Your task to perform on an android device: Open Youtube and go to "Your channel" Image 0: 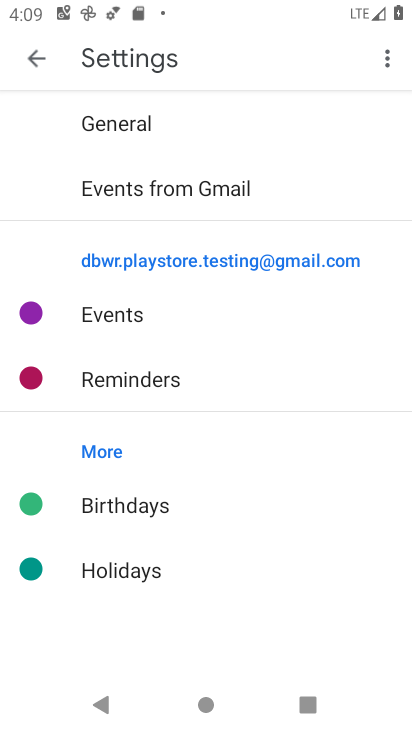
Step 0: press home button
Your task to perform on an android device: Open Youtube and go to "Your channel" Image 1: 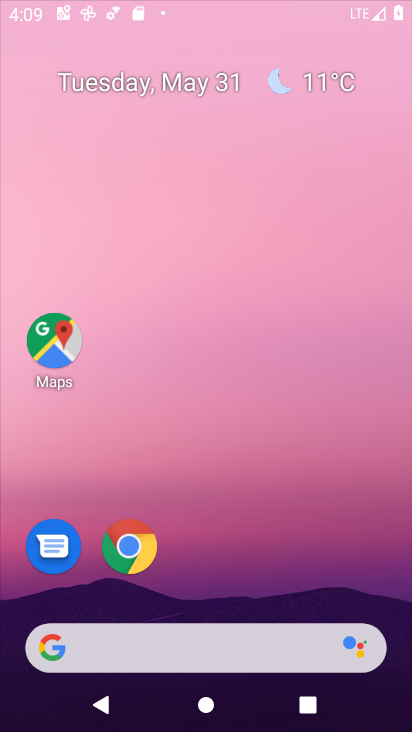
Step 1: drag from (273, 527) to (180, 11)
Your task to perform on an android device: Open Youtube and go to "Your channel" Image 2: 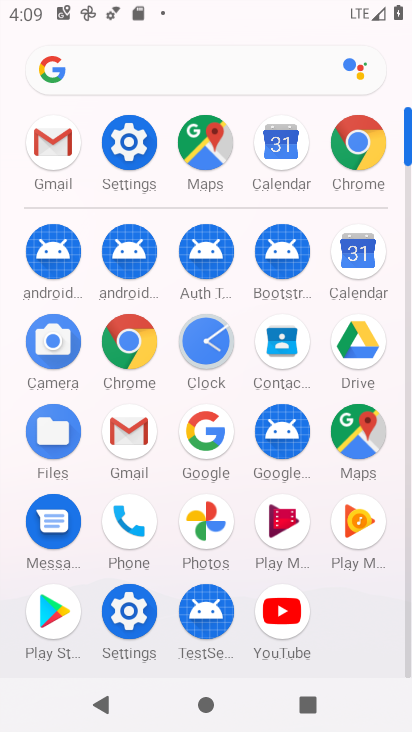
Step 2: click (304, 639)
Your task to perform on an android device: Open Youtube and go to "Your channel" Image 3: 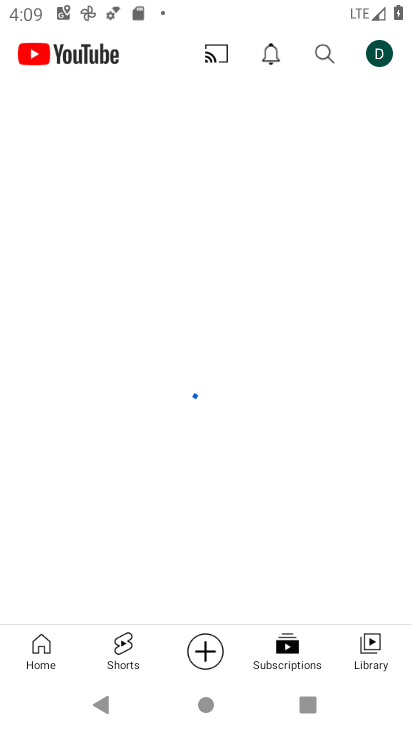
Step 3: click (387, 45)
Your task to perform on an android device: Open Youtube and go to "Your channel" Image 4: 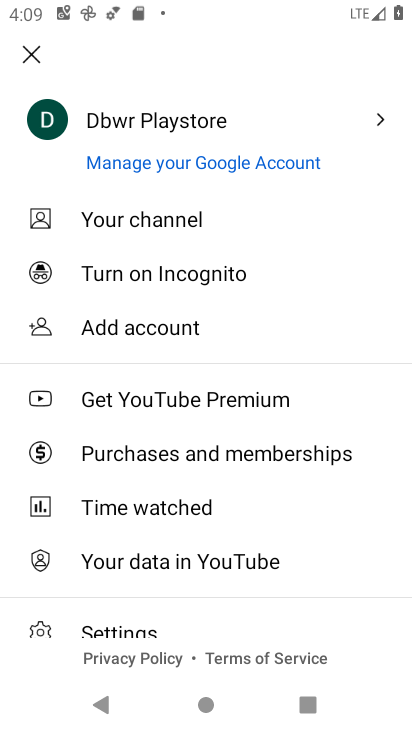
Step 4: click (119, 224)
Your task to perform on an android device: Open Youtube and go to "Your channel" Image 5: 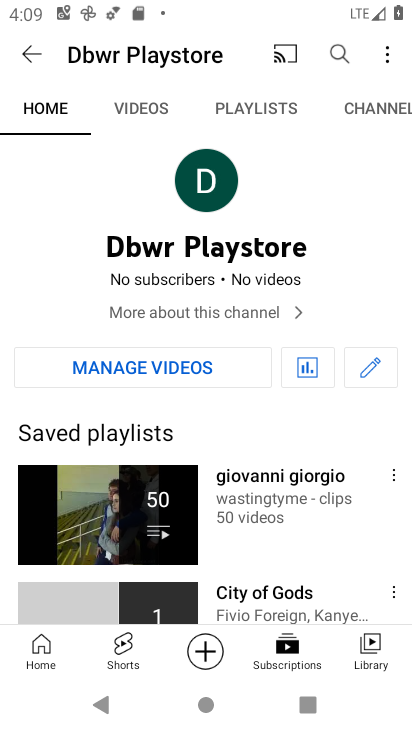
Step 5: task complete